Your task to perform on an android device: check out phone information Image 0: 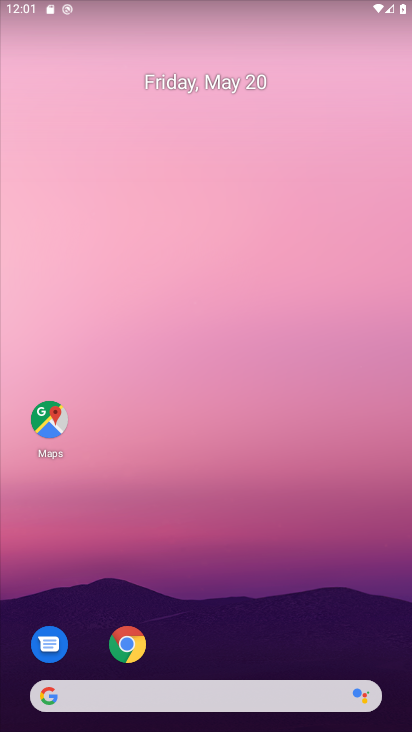
Step 0: drag from (203, 661) to (267, 321)
Your task to perform on an android device: check out phone information Image 1: 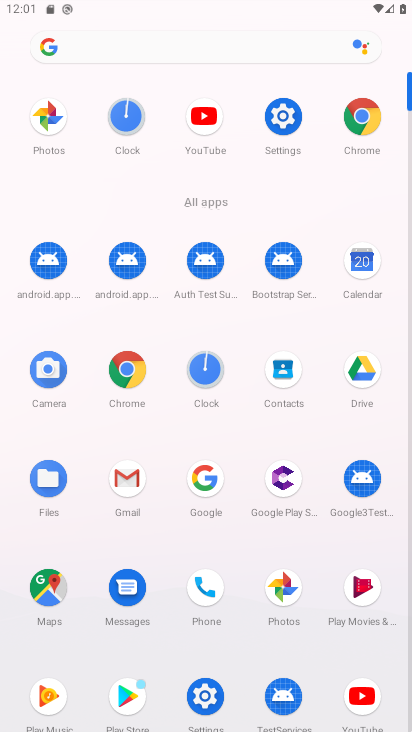
Step 1: click (128, 585)
Your task to perform on an android device: check out phone information Image 2: 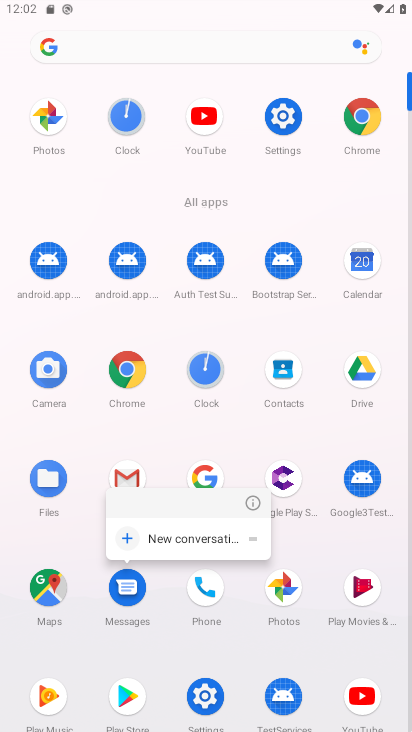
Step 2: click (204, 591)
Your task to perform on an android device: check out phone information Image 3: 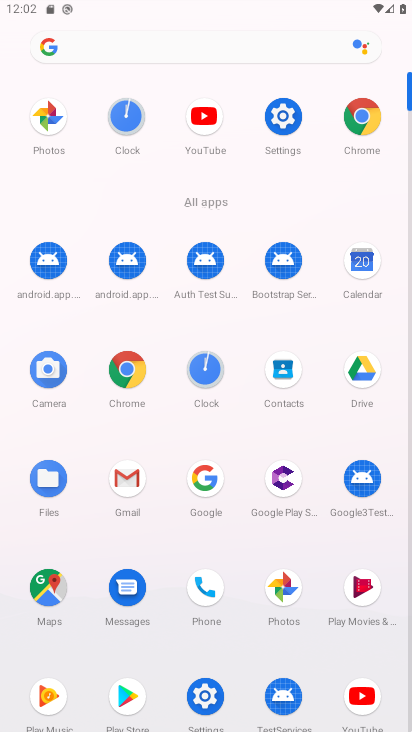
Step 3: click (207, 587)
Your task to perform on an android device: check out phone information Image 4: 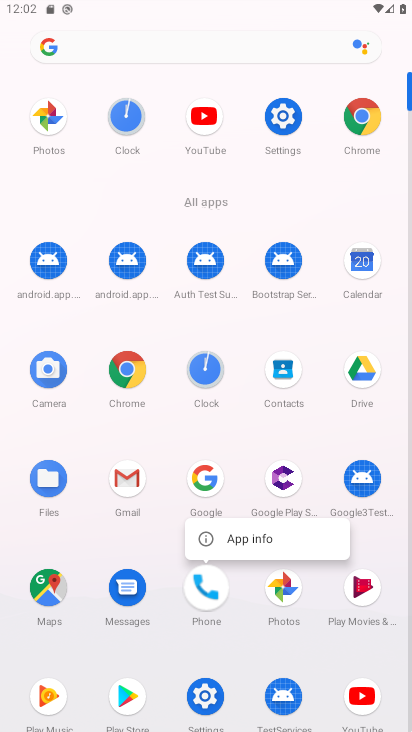
Step 4: click (247, 541)
Your task to perform on an android device: check out phone information Image 5: 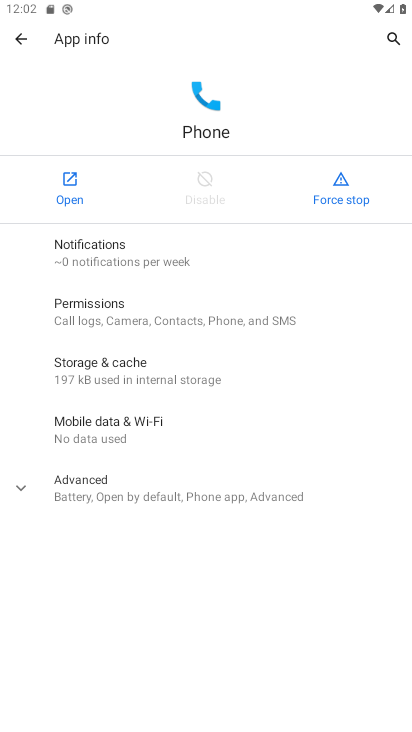
Step 5: click (164, 475)
Your task to perform on an android device: check out phone information Image 6: 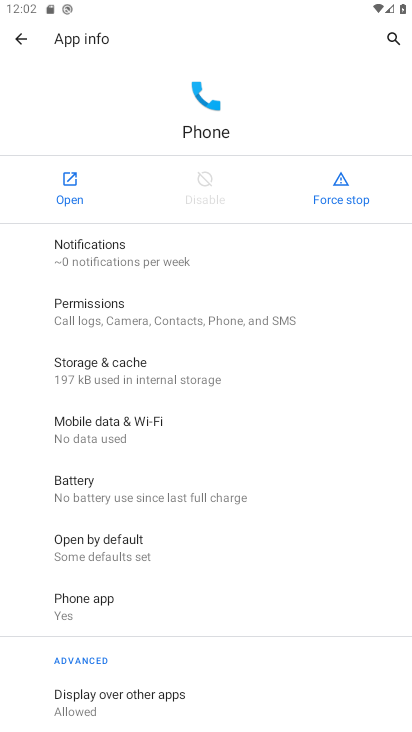
Step 6: task complete